Your task to perform on an android device: Open the web browser Image 0: 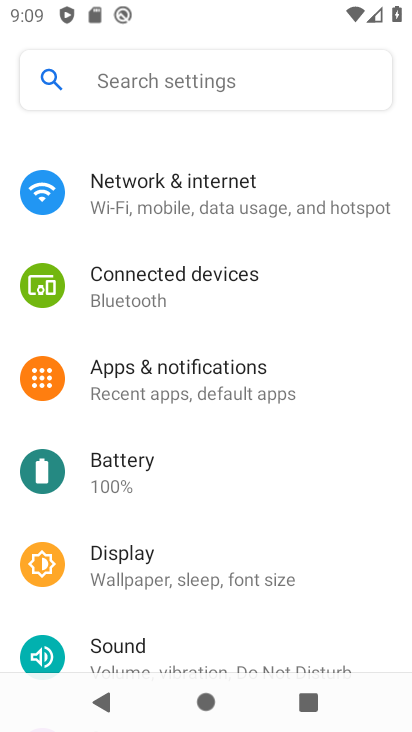
Step 0: press home button
Your task to perform on an android device: Open the web browser Image 1: 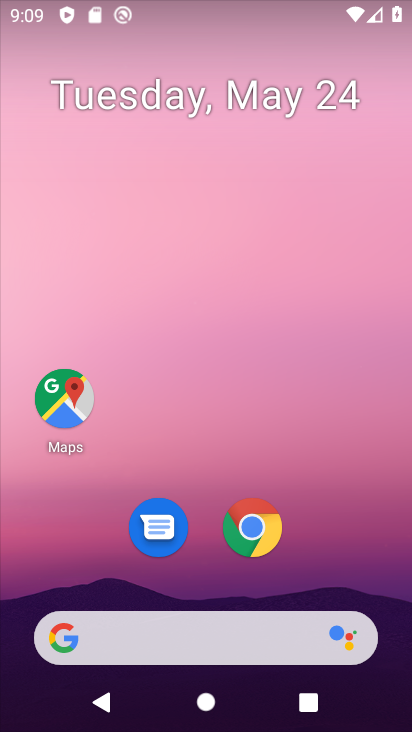
Step 1: click (258, 531)
Your task to perform on an android device: Open the web browser Image 2: 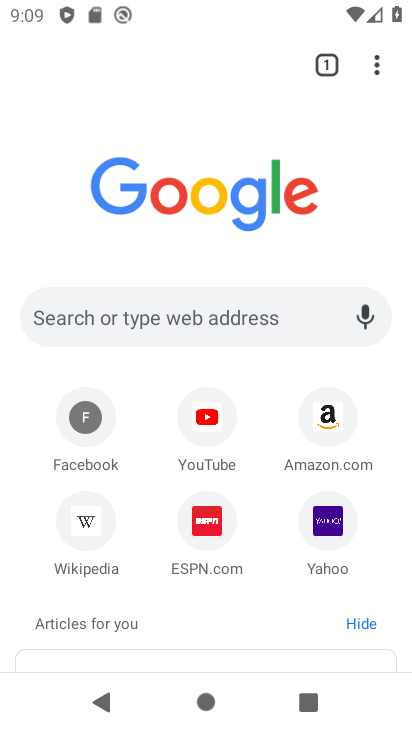
Step 2: task complete